Your task to perform on an android device: Open Google Image 0: 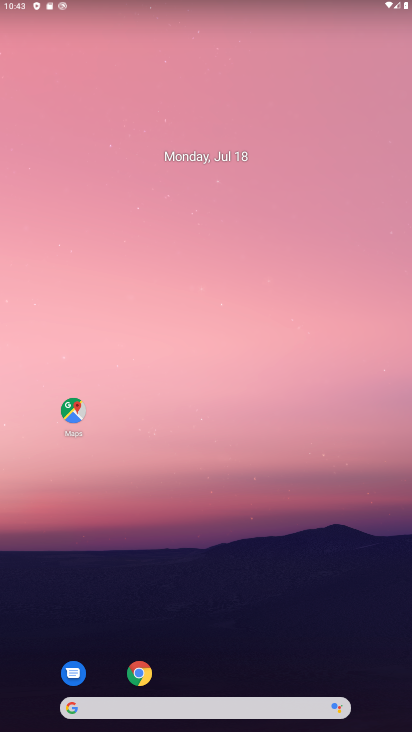
Step 0: press home button
Your task to perform on an android device: Open Google Image 1: 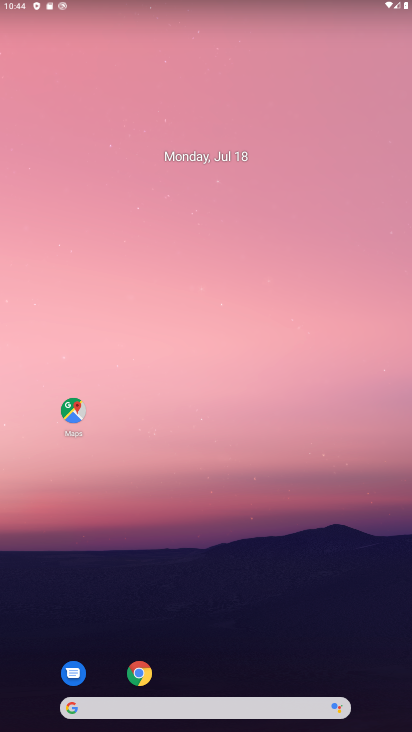
Step 1: drag from (219, 630) to (212, 37)
Your task to perform on an android device: Open Google Image 2: 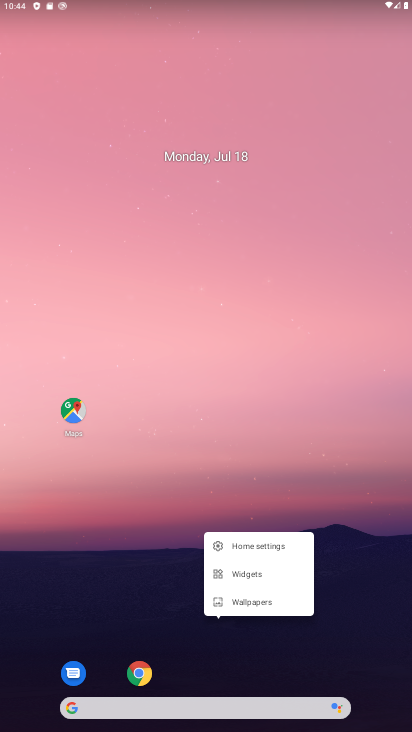
Step 2: click (174, 579)
Your task to perform on an android device: Open Google Image 3: 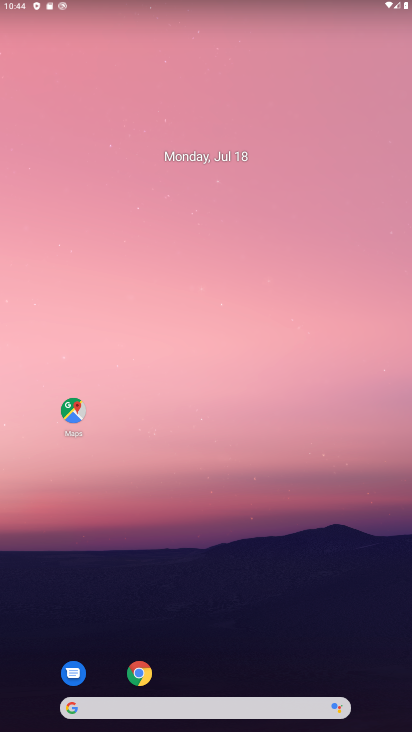
Step 3: drag from (229, 273) to (234, 140)
Your task to perform on an android device: Open Google Image 4: 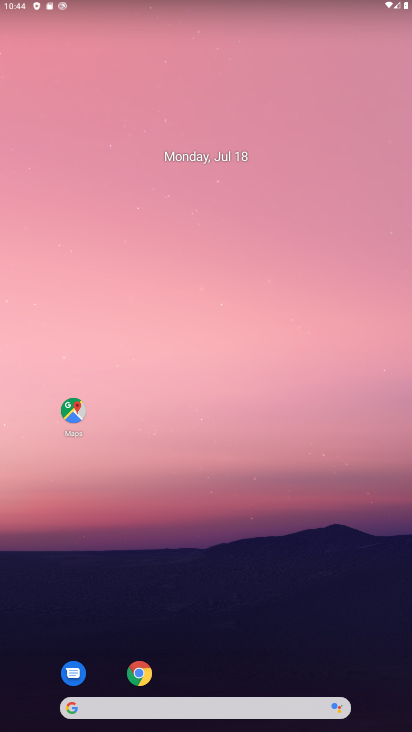
Step 4: drag from (226, 659) to (224, 65)
Your task to perform on an android device: Open Google Image 5: 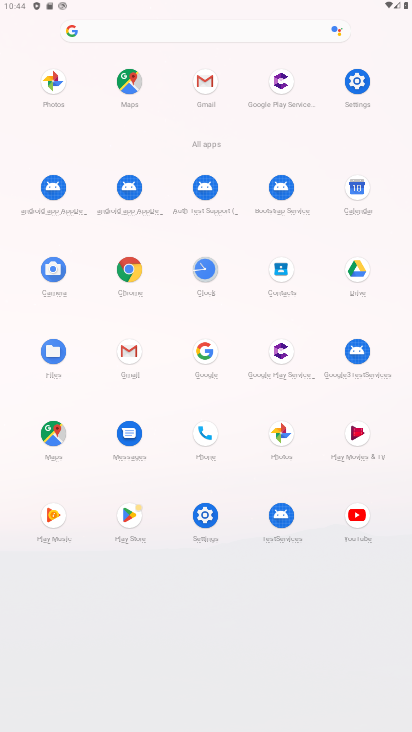
Step 5: click (202, 344)
Your task to perform on an android device: Open Google Image 6: 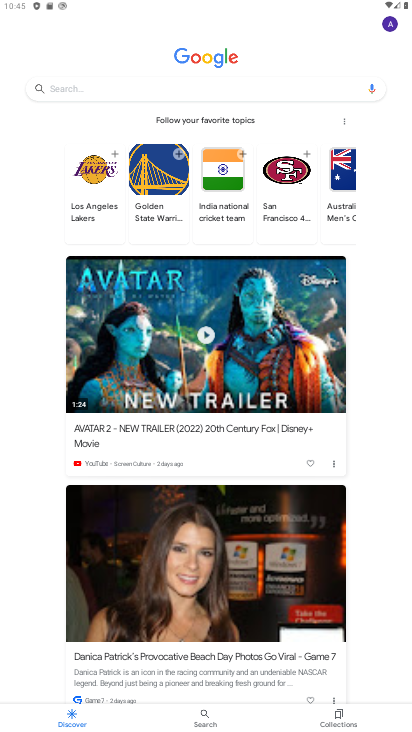
Step 6: task complete